Your task to perform on an android device: snooze an email in the gmail app Image 0: 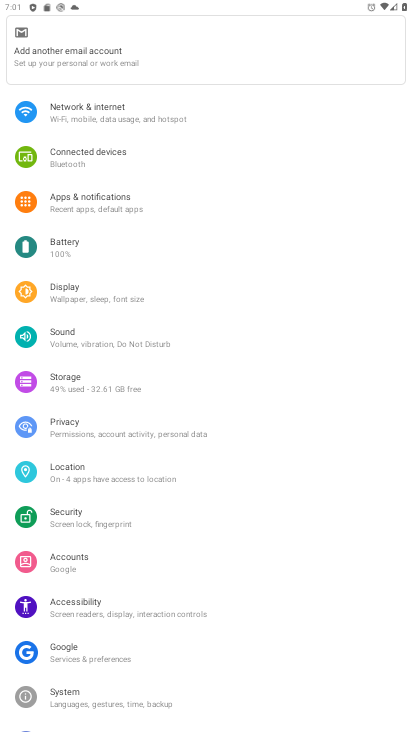
Step 0: press home button
Your task to perform on an android device: snooze an email in the gmail app Image 1: 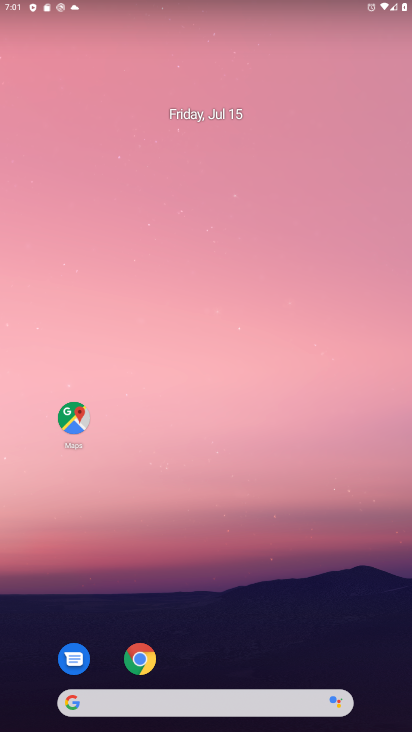
Step 1: drag from (376, 683) to (320, 76)
Your task to perform on an android device: snooze an email in the gmail app Image 2: 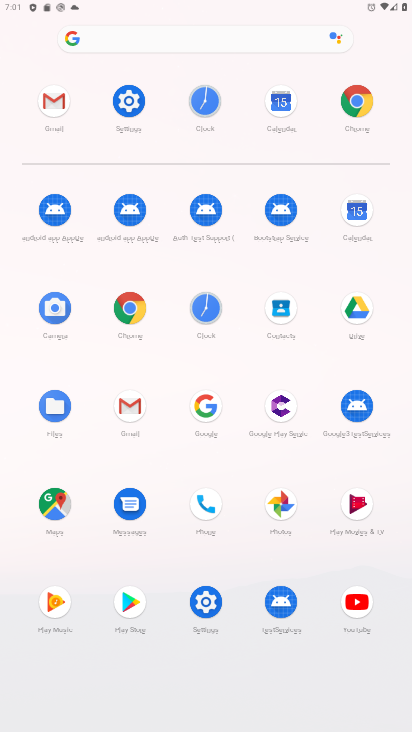
Step 2: click (129, 404)
Your task to perform on an android device: snooze an email in the gmail app Image 3: 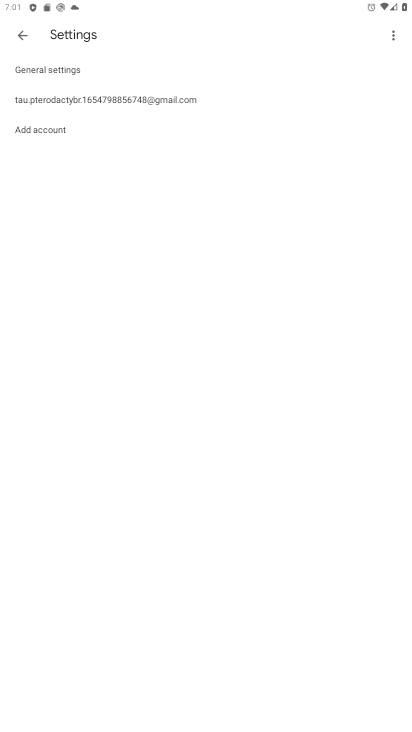
Step 3: press back button
Your task to perform on an android device: snooze an email in the gmail app Image 4: 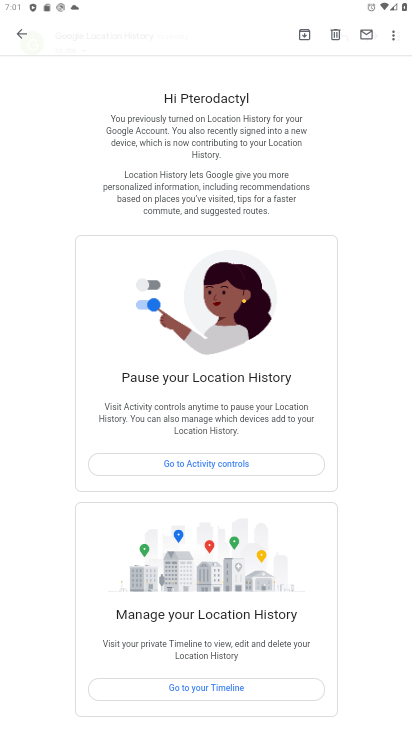
Step 4: press back button
Your task to perform on an android device: snooze an email in the gmail app Image 5: 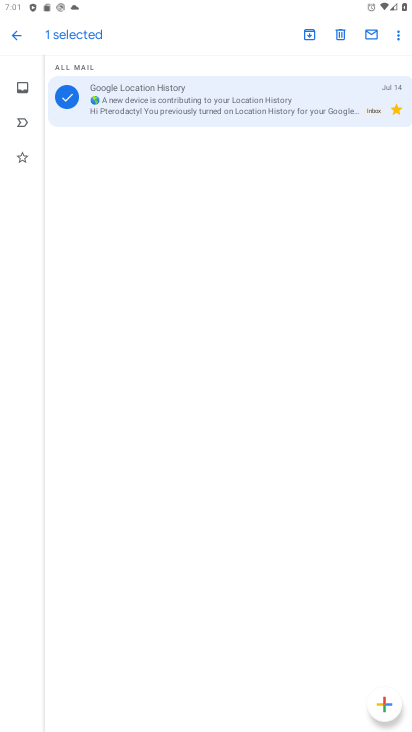
Step 5: press back button
Your task to perform on an android device: snooze an email in the gmail app Image 6: 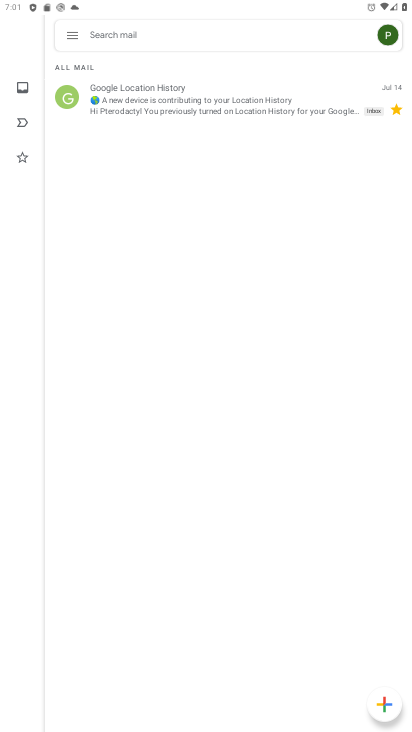
Step 6: click (69, 37)
Your task to perform on an android device: snooze an email in the gmail app Image 7: 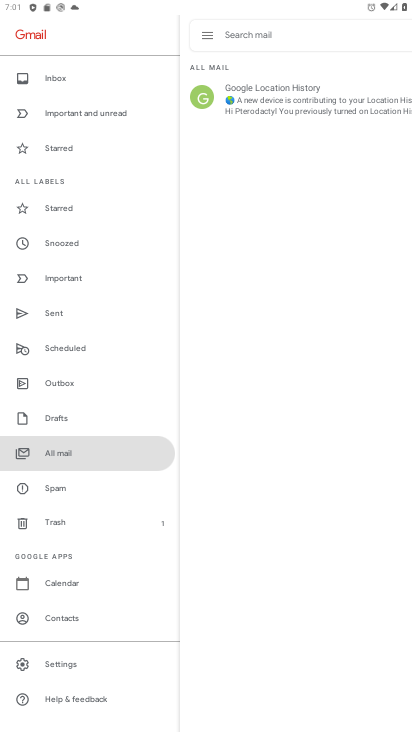
Step 7: click (276, 258)
Your task to perform on an android device: snooze an email in the gmail app Image 8: 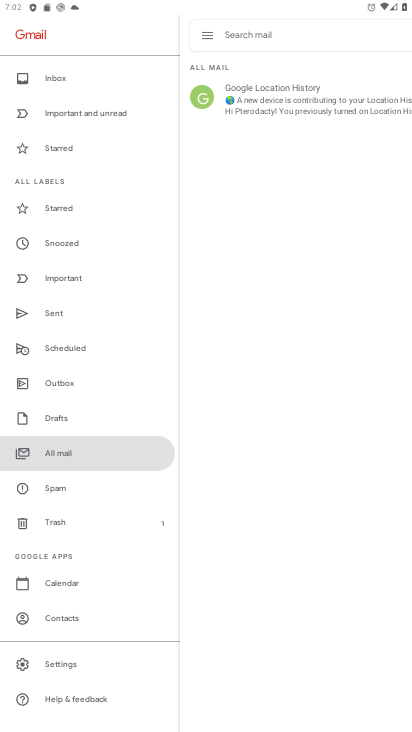
Step 8: click (281, 94)
Your task to perform on an android device: snooze an email in the gmail app Image 9: 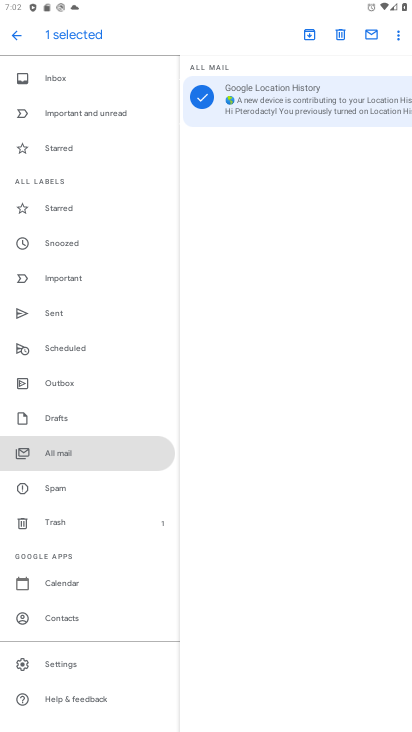
Step 9: click (399, 39)
Your task to perform on an android device: snooze an email in the gmail app Image 10: 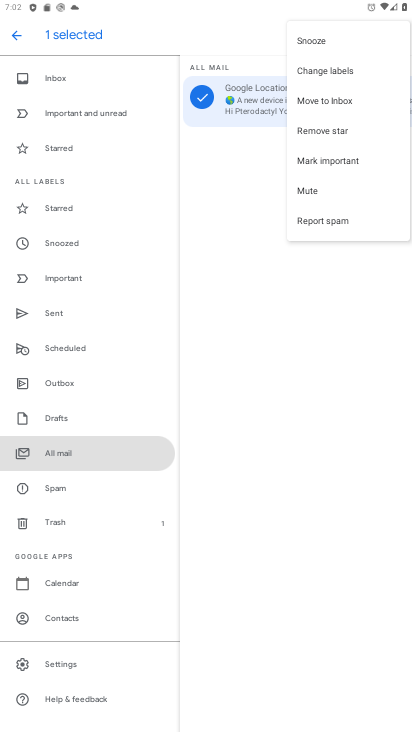
Step 10: click (312, 37)
Your task to perform on an android device: snooze an email in the gmail app Image 11: 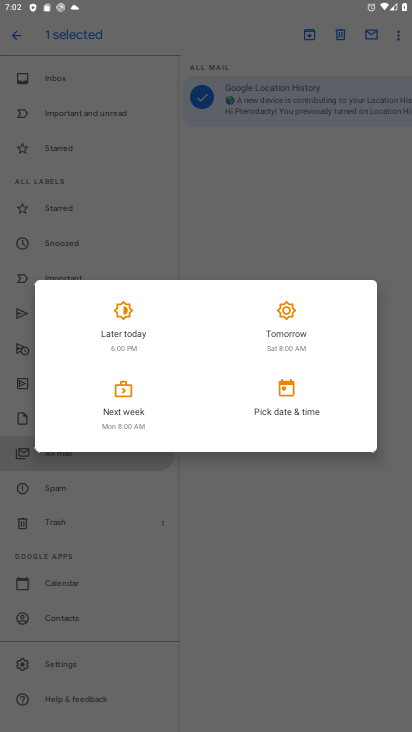
Step 11: click (118, 329)
Your task to perform on an android device: snooze an email in the gmail app Image 12: 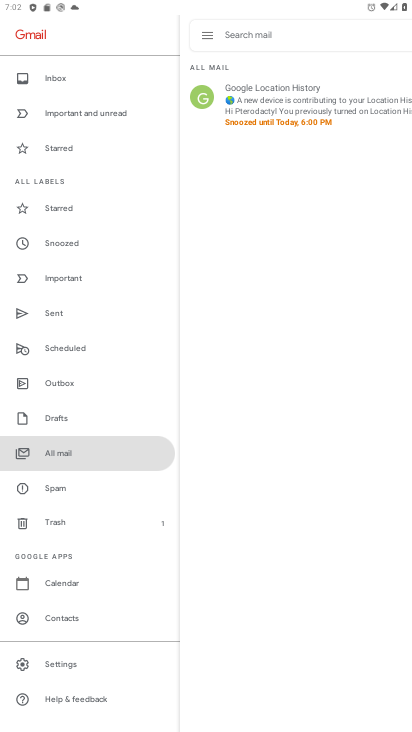
Step 12: task complete